Your task to perform on an android device: turn on airplane mode Image 0: 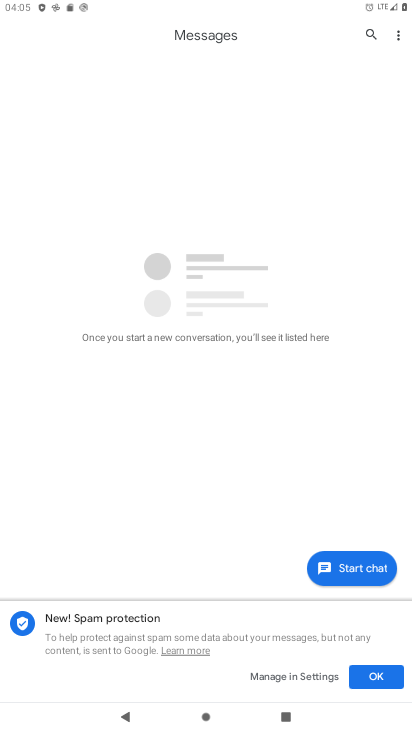
Step 0: press home button
Your task to perform on an android device: turn on airplane mode Image 1: 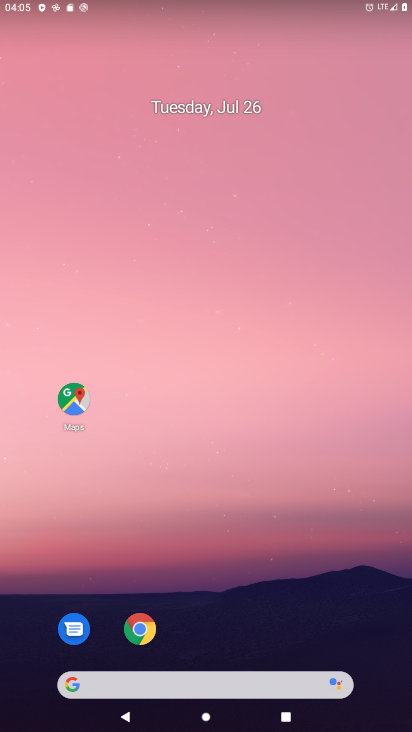
Step 1: drag from (265, 4) to (237, 486)
Your task to perform on an android device: turn on airplane mode Image 2: 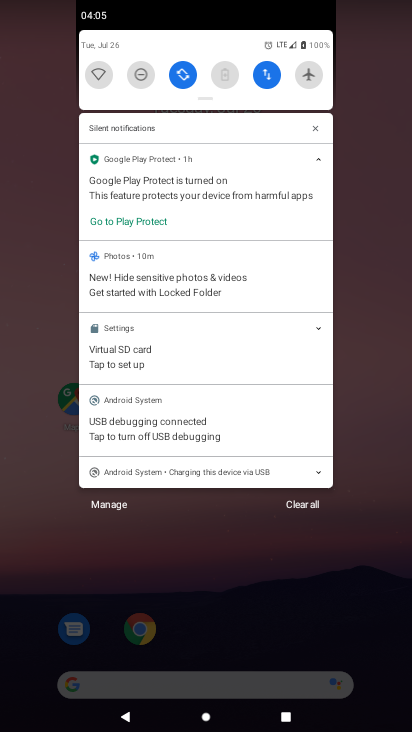
Step 2: click (307, 74)
Your task to perform on an android device: turn on airplane mode Image 3: 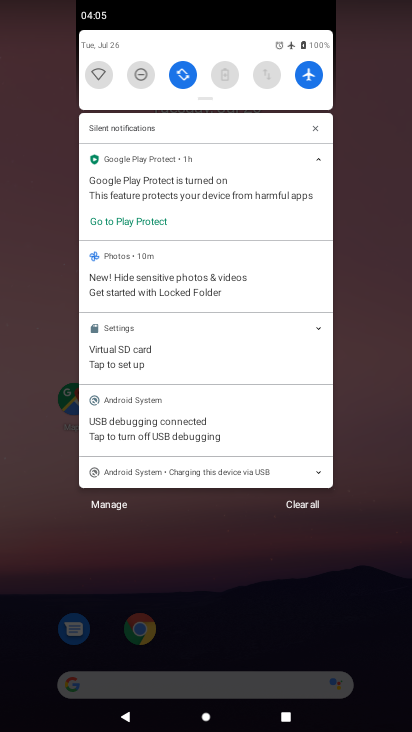
Step 3: task complete